Your task to perform on an android device: turn on showing notifications on the lock screen Image 0: 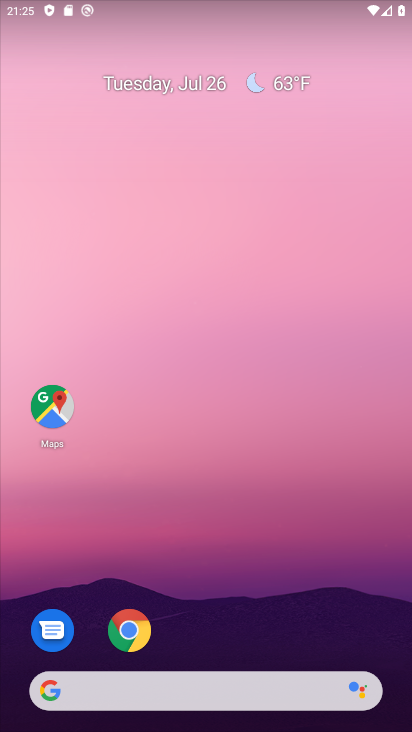
Step 0: drag from (288, 627) to (288, 39)
Your task to perform on an android device: turn on showing notifications on the lock screen Image 1: 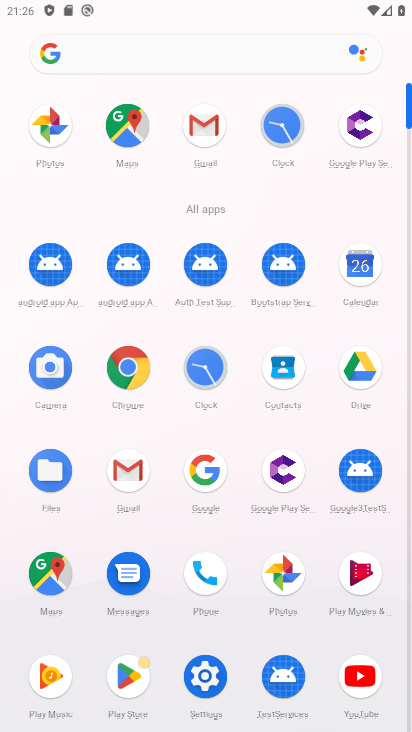
Step 1: click (202, 681)
Your task to perform on an android device: turn on showing notifications on the lock screen Image 2: 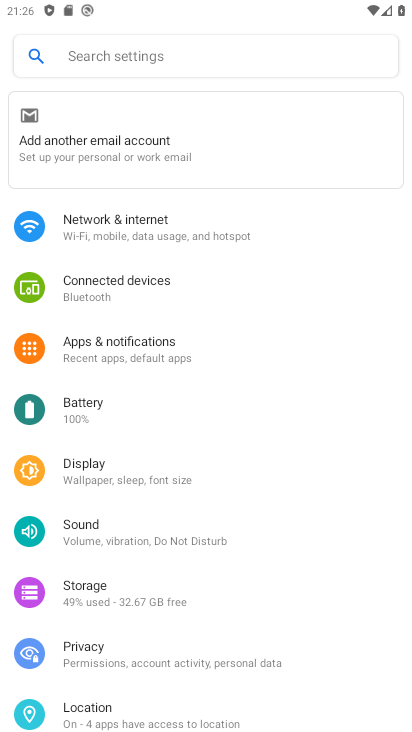
Step 2: click (141, 349)
Your task to perform on an android device: turn on showing notifications on the lock screen Image 3: 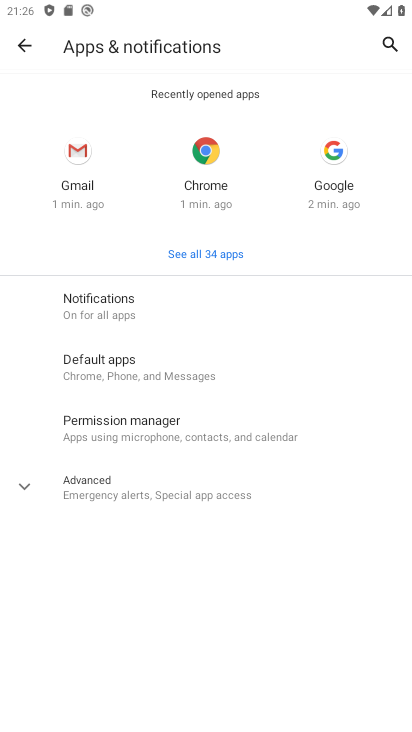
Step 3: click (126, 303)
Your task to perform on an android device: turn on showing notifications on the lock screen Image 4: 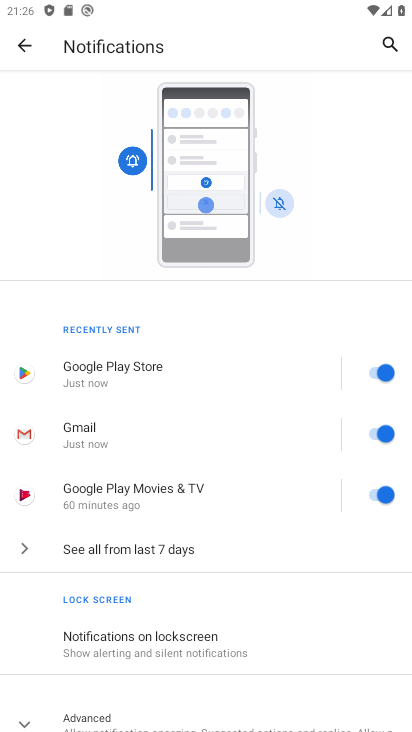
Step 4: click (127, 648)
Your task to perform on an android device: turn on showing notifications on the lock screen Image 5: 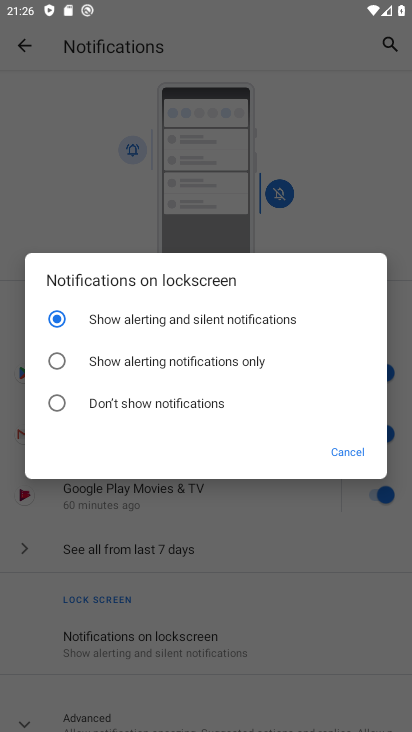
Step 5: click (175, 318)
Your task to perform on an android device: turn on showing notifications on the lock screen Image 6: 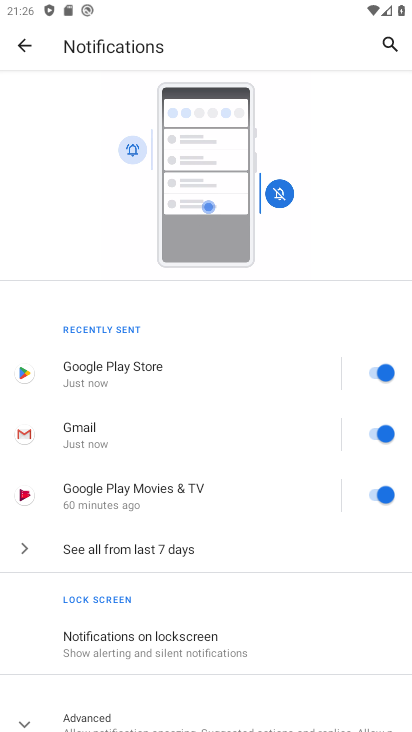
Step 6: task complete